Your task to perform on an android device: change alarm snooze length Image 0: 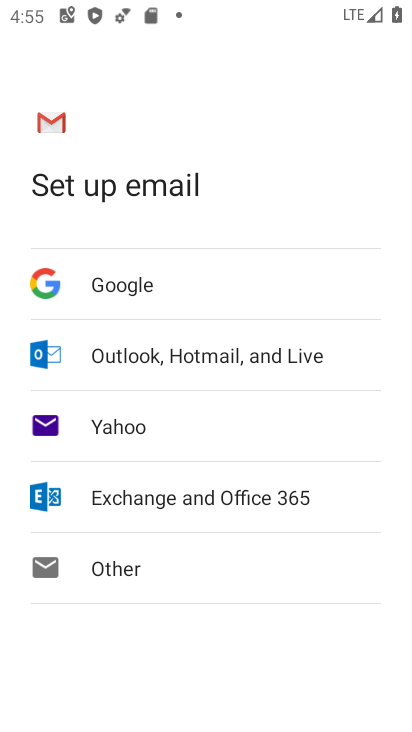
Step 0: press home button
Your task to perform on an android device: change alarm snooze length Image 1: 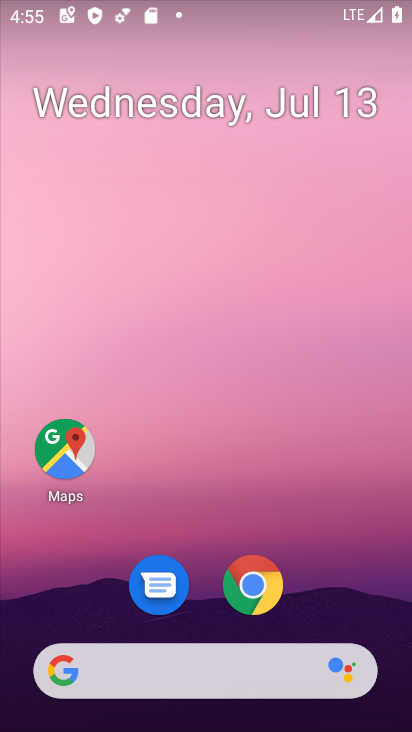
Step 1: drag from (322, 550) to (311, 67)
Your task to perform on an android device: change alarm snooze length Image 2: 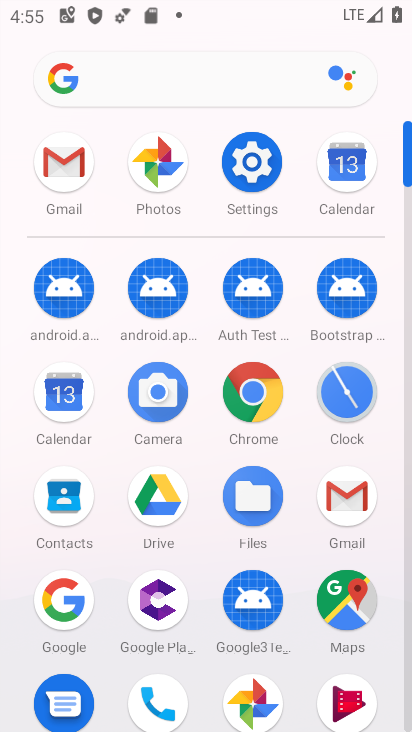
Step 2: click (354, 404)
Your task to perform on an android device: change alarm snooze length Image 3: 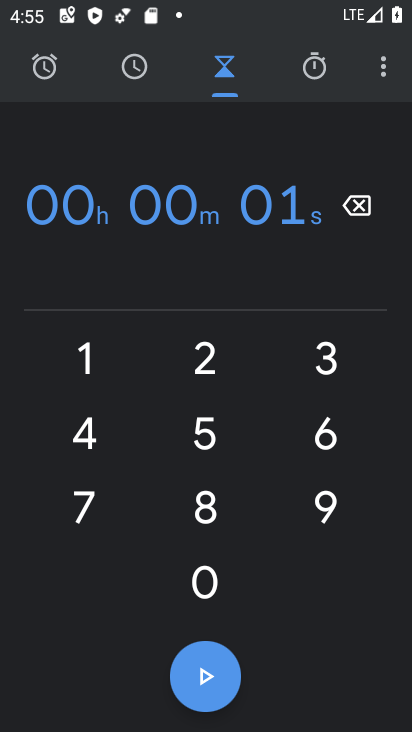
Step 3: click (388, 75)
Your task to perform on an android device: change alarm snooze length Image 4: 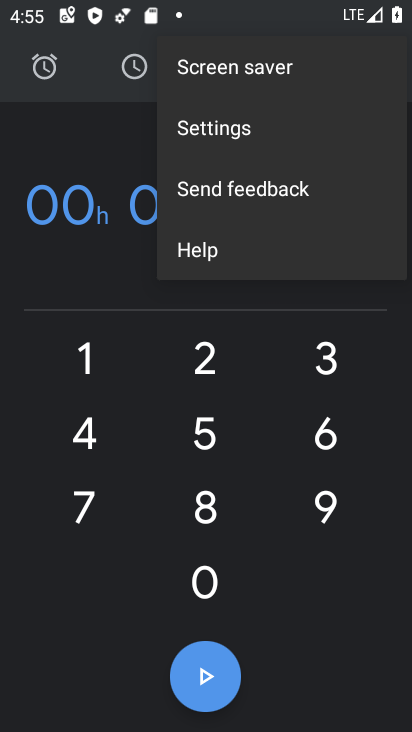
Step 4: click (279, 129)
Your task to perform on an android device: change alarm snooze length Image 5: 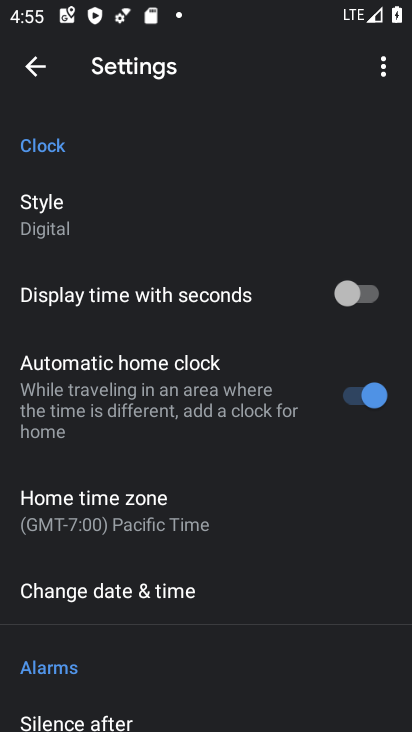
Step 5: drag from (242, 540) to (234, 172)
Your task to perform on an android device: change alarm snooze length Image 6: 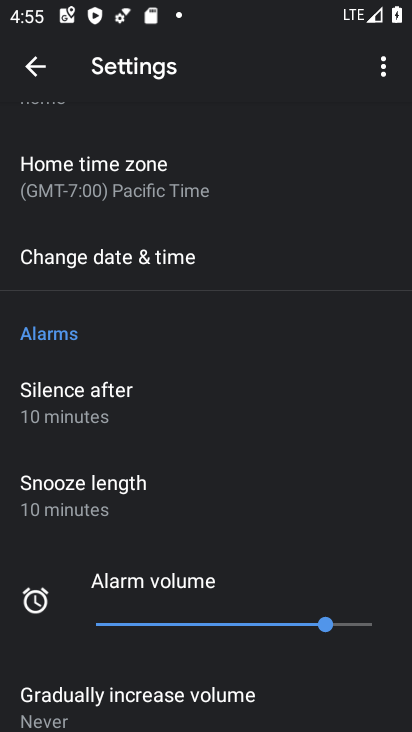
Step 6: click (119, 483)
Your task to perform on an android device: change alarm snooze length Image 7: 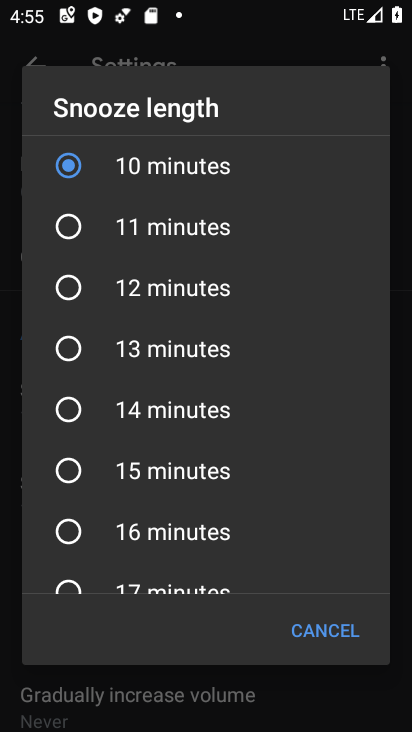
Step 7: click (73, 287)
Your task to perform on an android device: change alarm snooze length Image 8: 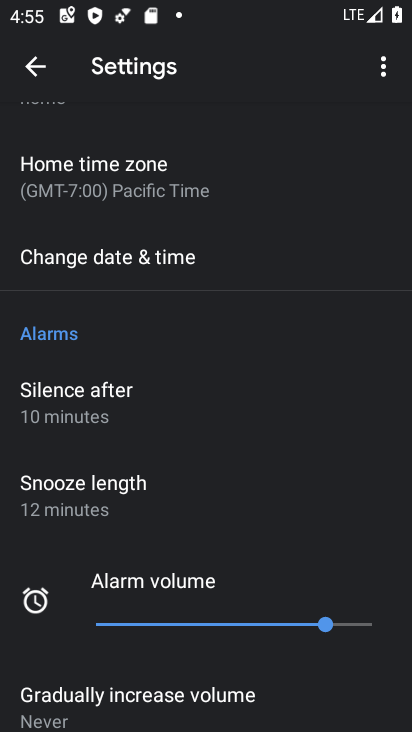
Step 8: task complete